Your task to perform on an android device: Search for a new nail polish Image 0: 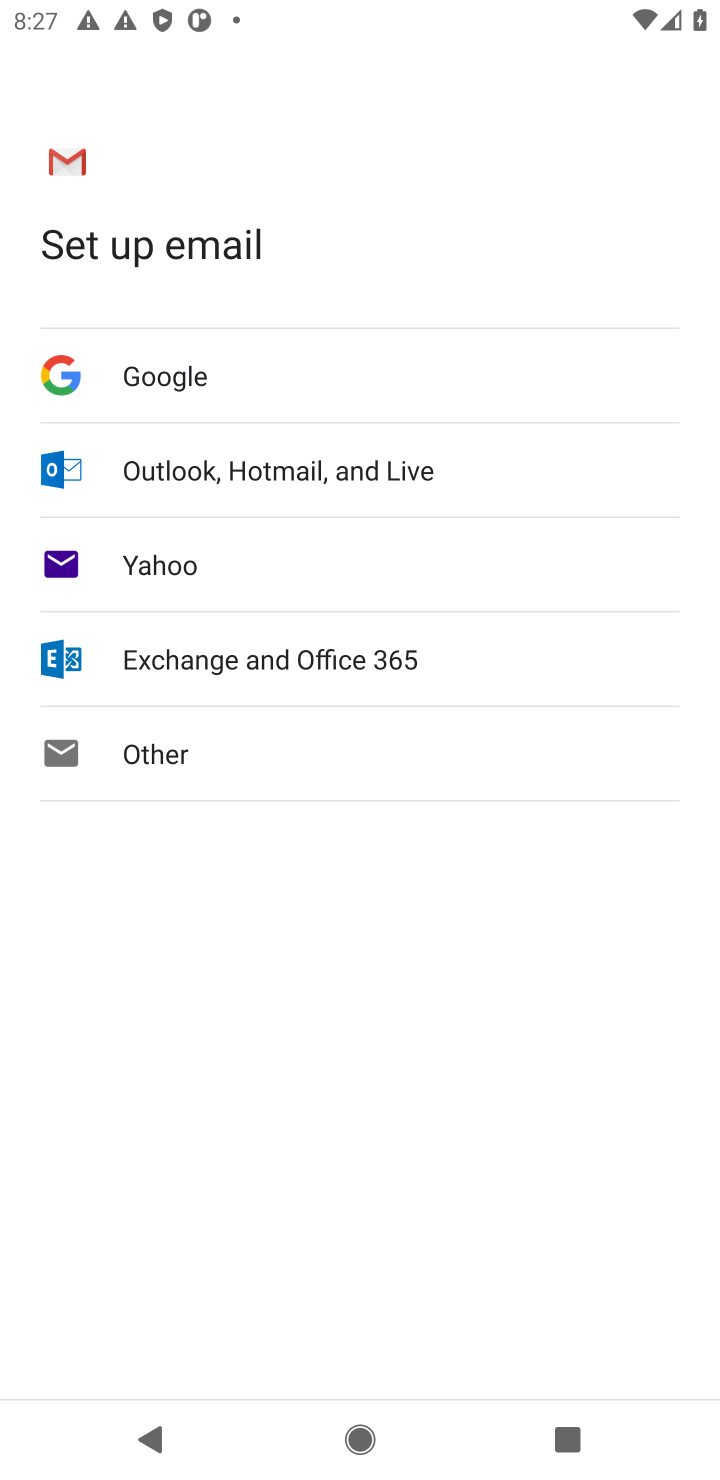
Step 0: press home button
Your task to perform on an android device: Search for a new nail polish Image 1: 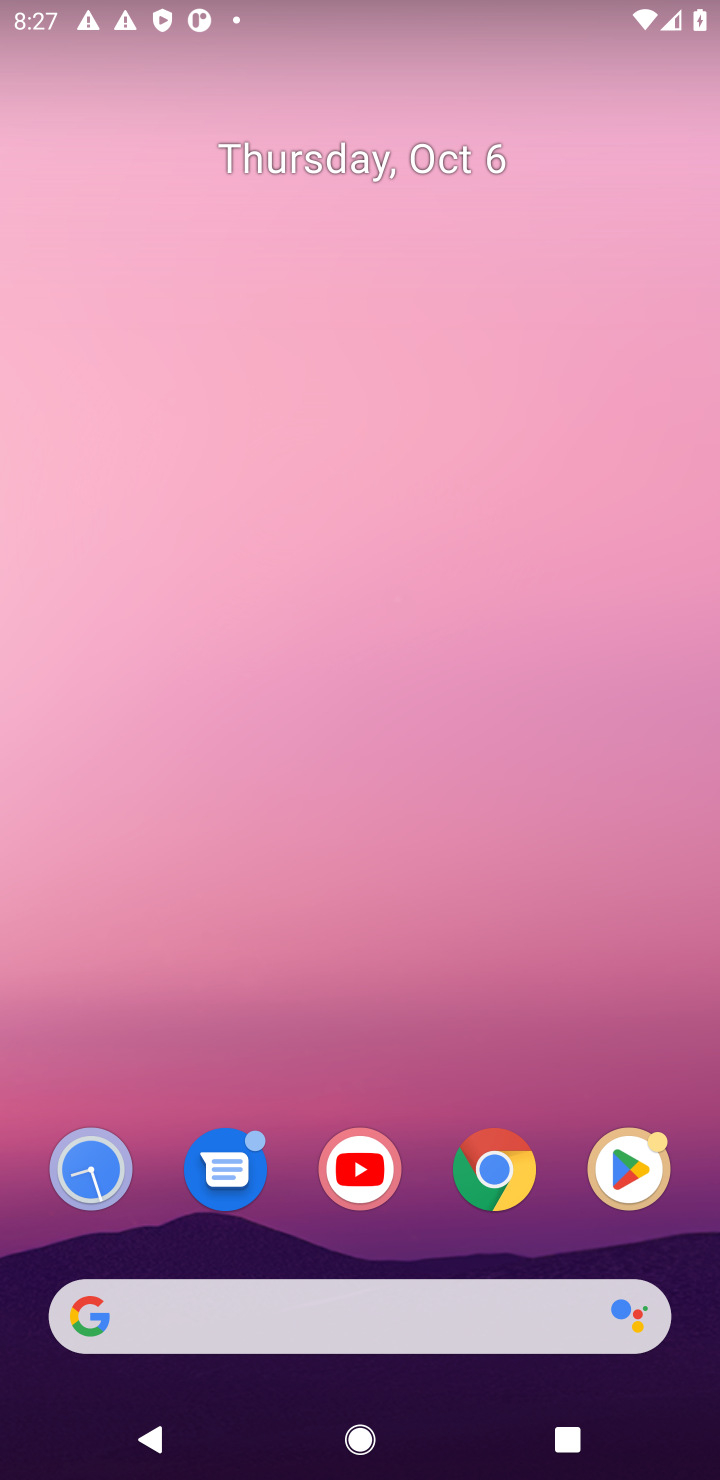
Step 1: click (238, 1321)
Your task to perform on an android device: Search for a new nail polish Image 2: 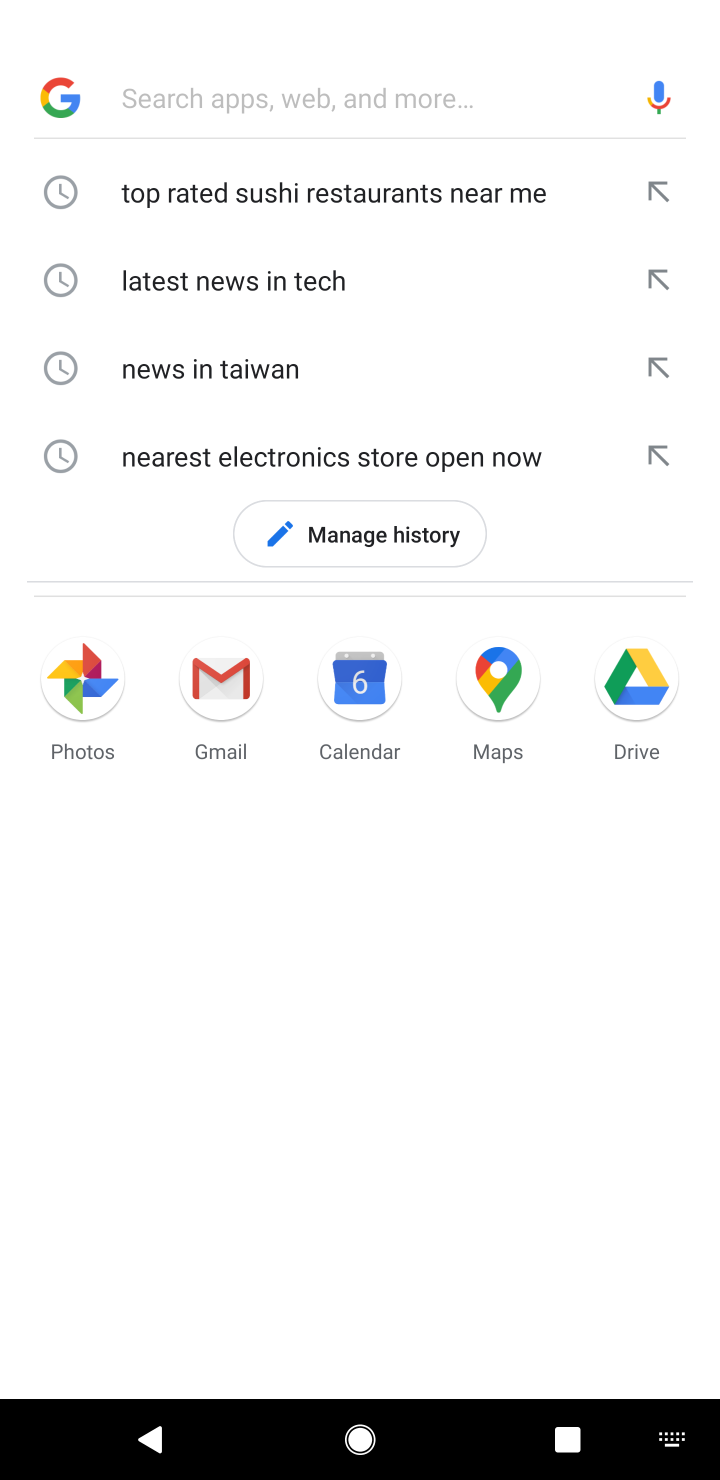
Step 2: click (301, 82)
Your task to perform on an android device: Search for a new nail polish Image 3: 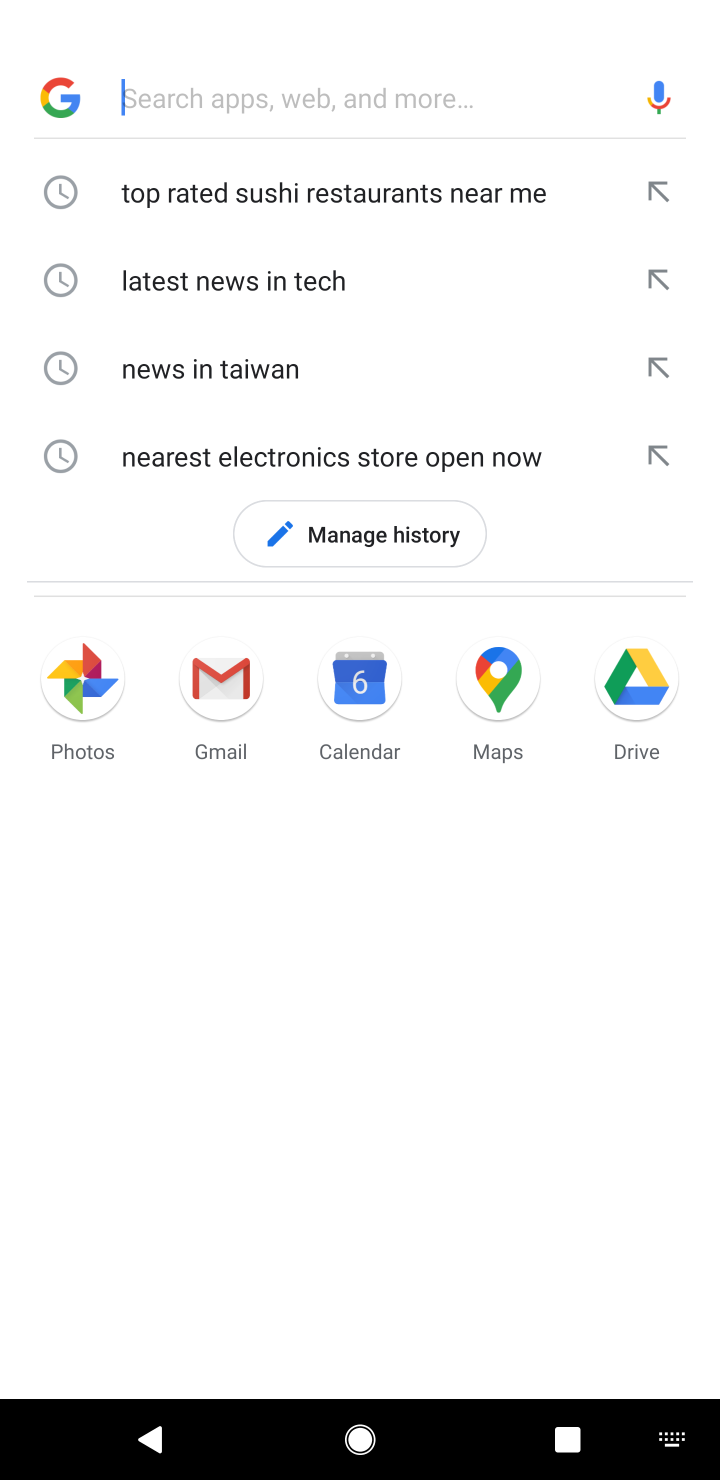
Step 3: type "new nail polish"
Your task to perform on an android device: Search for a new nail polish Image 4: 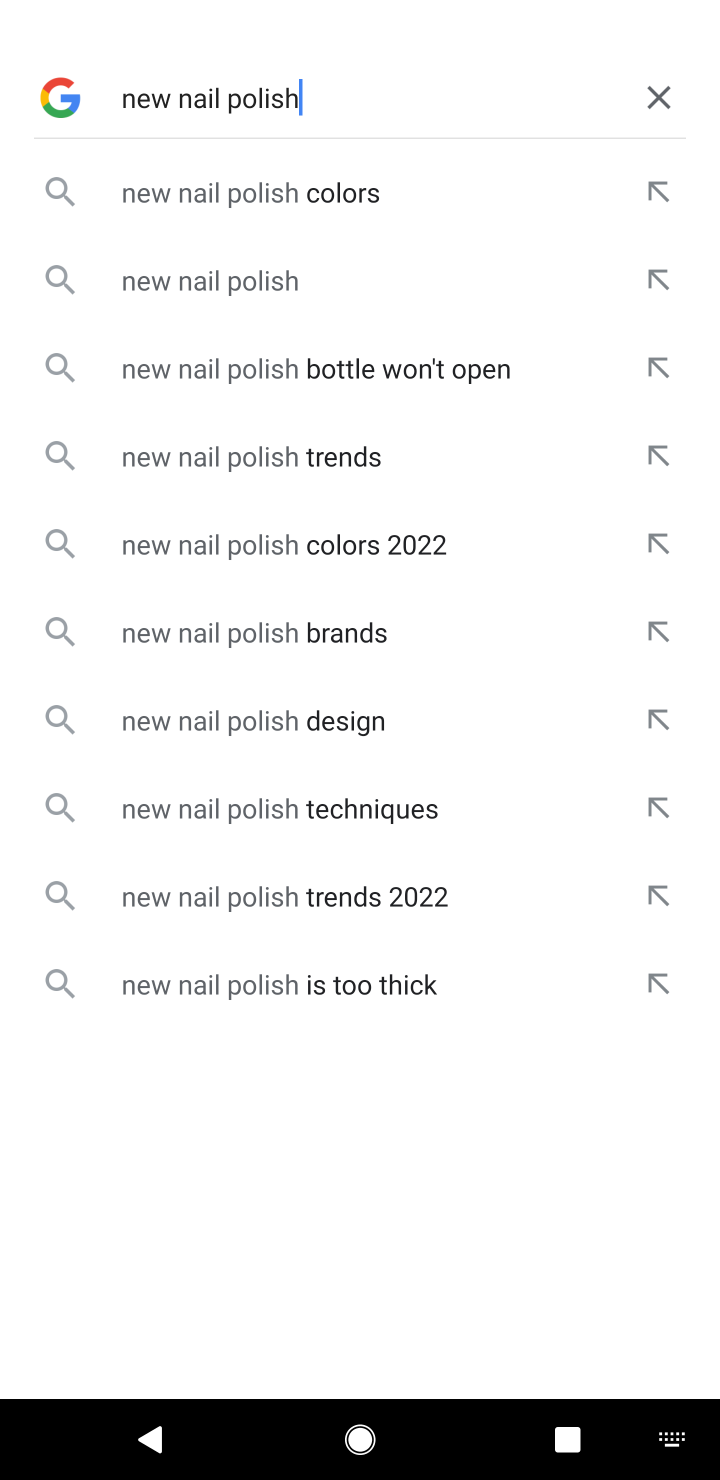
Step 4: click (242, 281)
Your task to perform on an android device: Search for a new nail polish Image 5: 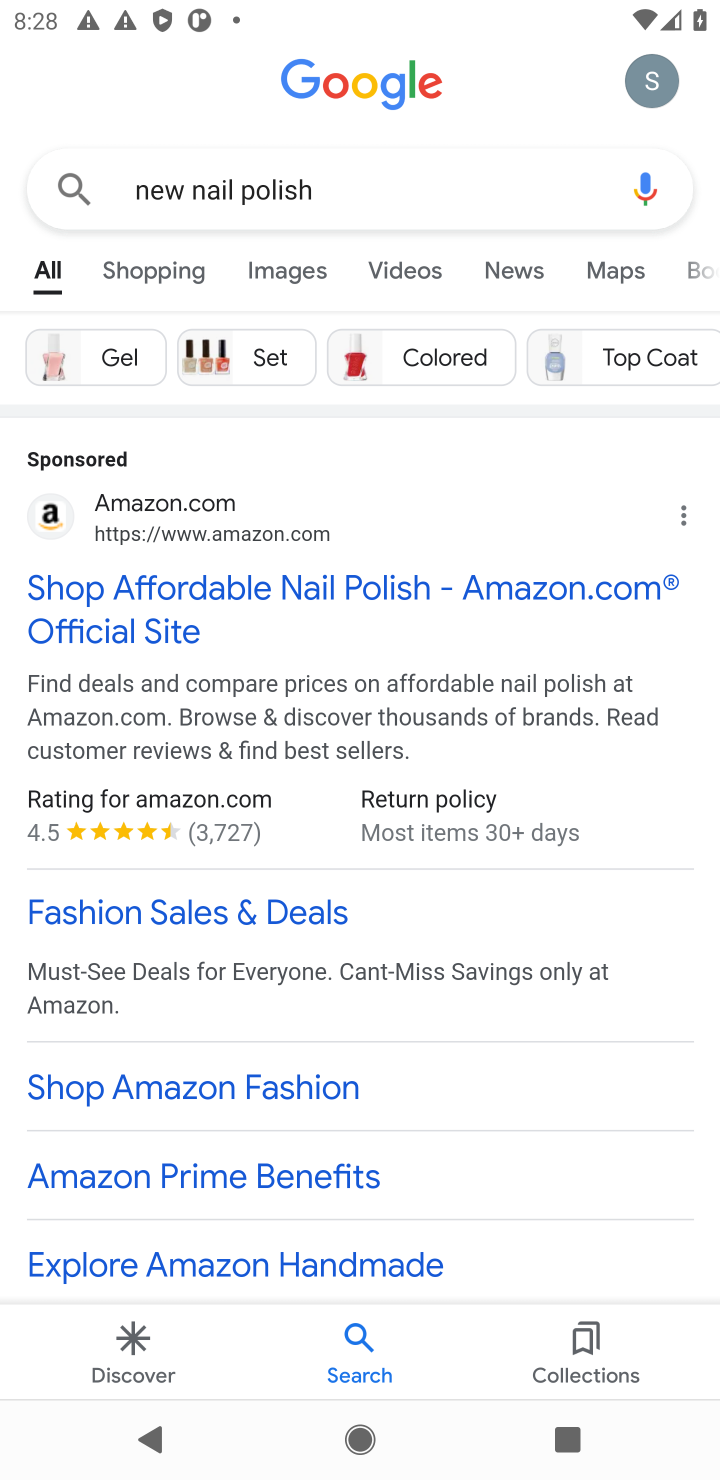
Step 5: task complete